Your task to perform on an android device: Search for pizza restaurants on Maps Image 0: 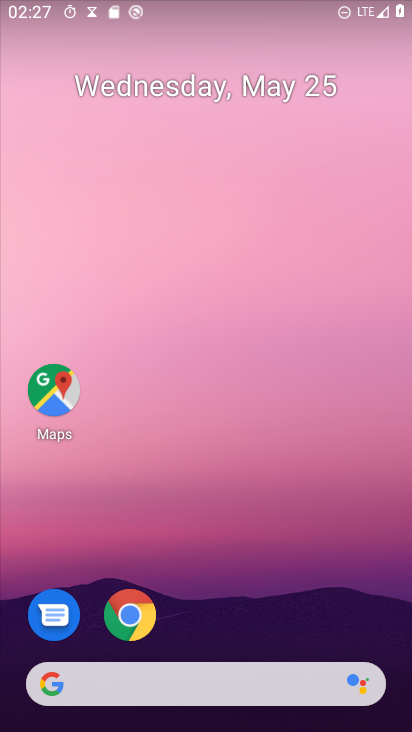
Step 0: drag from (293, 706) to (240, 111)
Your task to perform on an android device: Search for pizza restaurants on Maps Image 1: 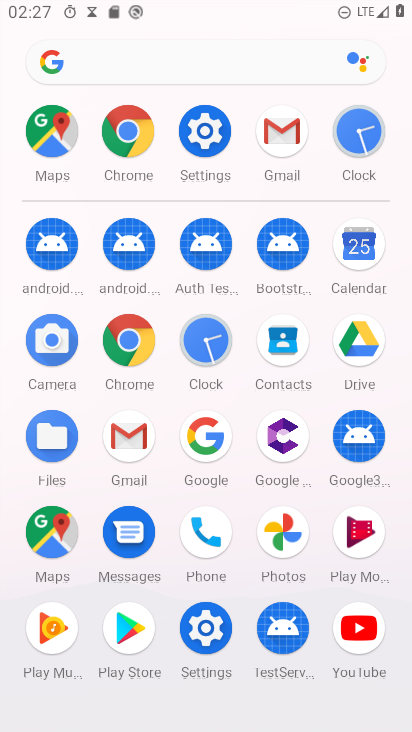
Step 1: click (45, 137)
Your task to perform on an android device: Search for pizza restaurants on Maps Image 2: 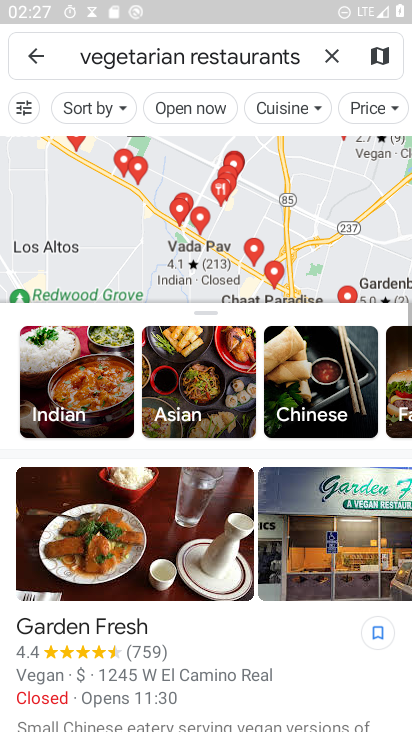
Step 2: click (339, 48)
Your task to perform on an android device: Search for pizza restaurants on Maps Image 3: 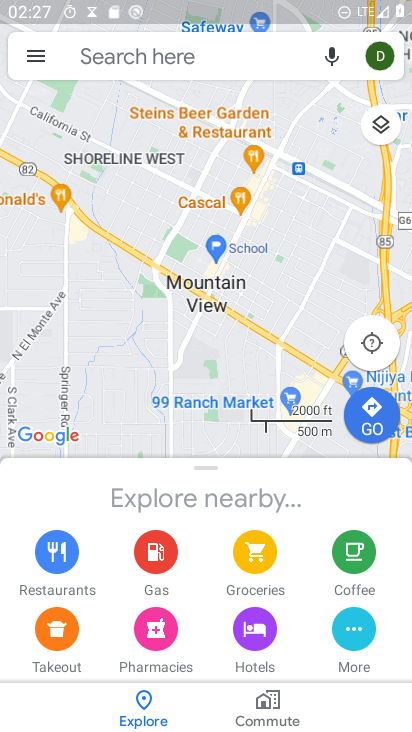
Step 3: click (266, 68)
Your task to perform on an android device: Search for pizza restaurants on Maps Image 4: 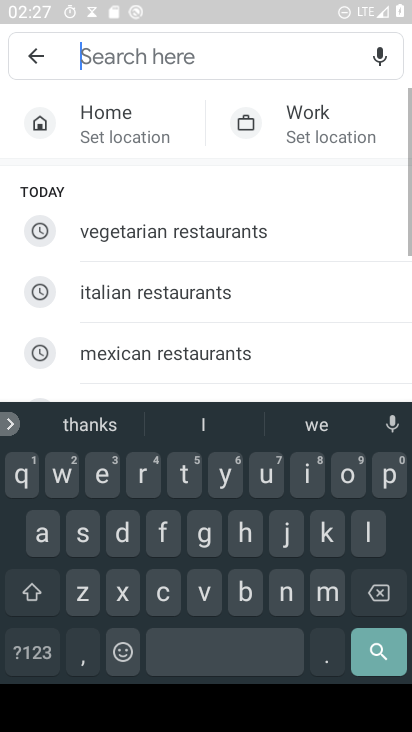
Step 4: click (386, 477)
Your task to perform on an android device: Search for pizza restaurants on Maps Image 5: 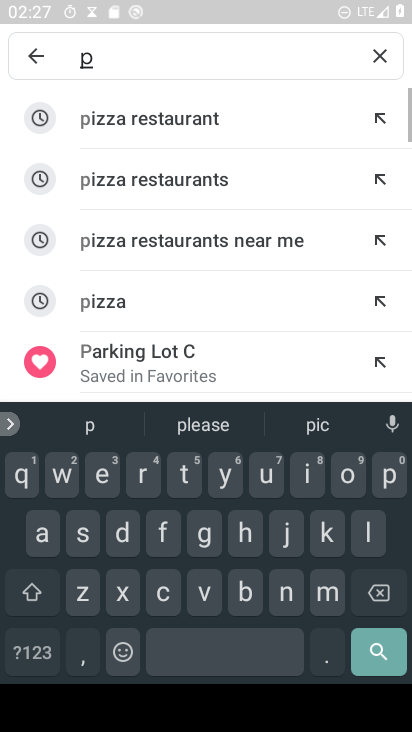
Step 5: click (161, 111)
Your task to perform on an android device: Search for pizza restaurants on Maps Image 6: 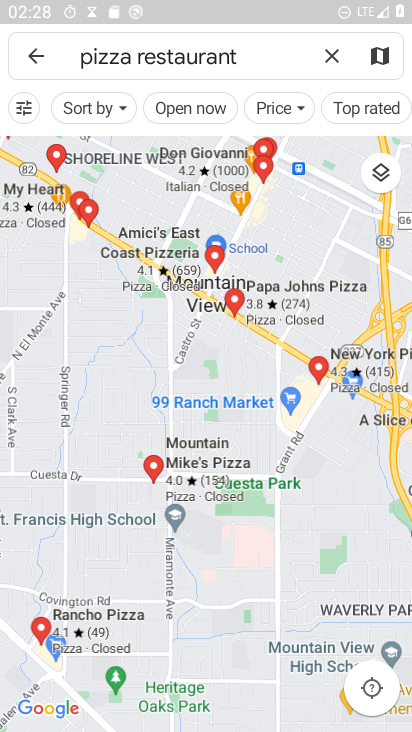
Step 6: task complete